Your task to perform on an android device: Open battery settings Image 0: 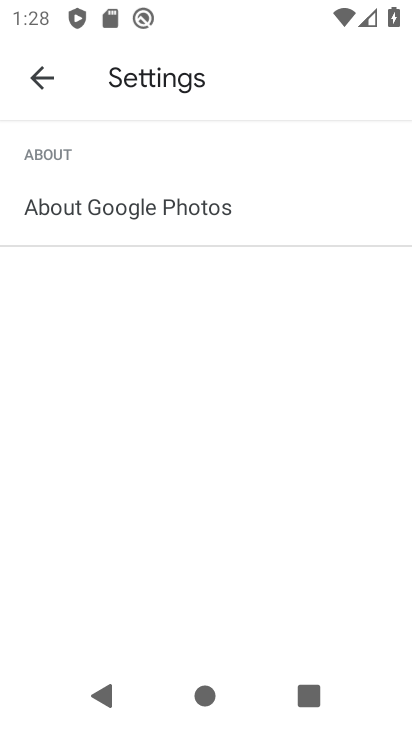
Step 0: press home button
Your task to perform on an android device: Open battery settings Image 1: 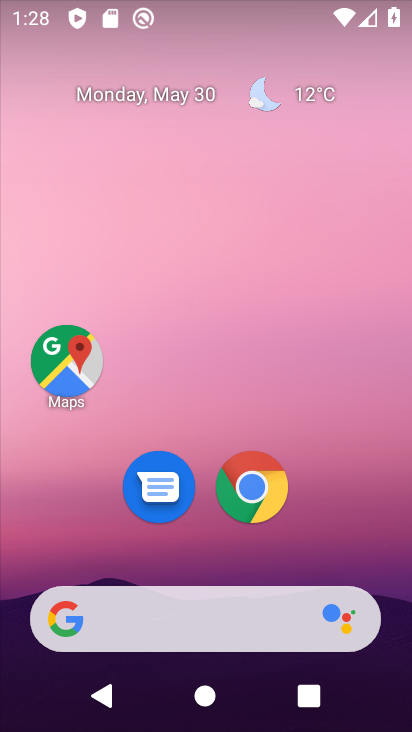
Step 1: drag from (77, 574) to (227, 75)
Your task to perform on an android device: Open battery settings Image 2: 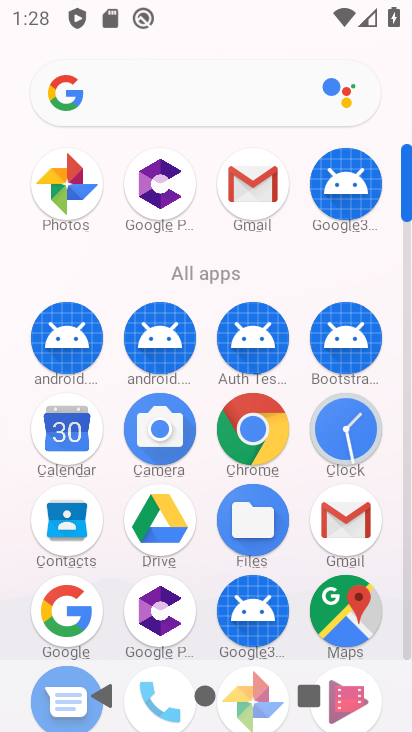
Step 2: drag from (112, 671) to (215, 385)
Your task to perform on an android device: Open battery settings Image 3: 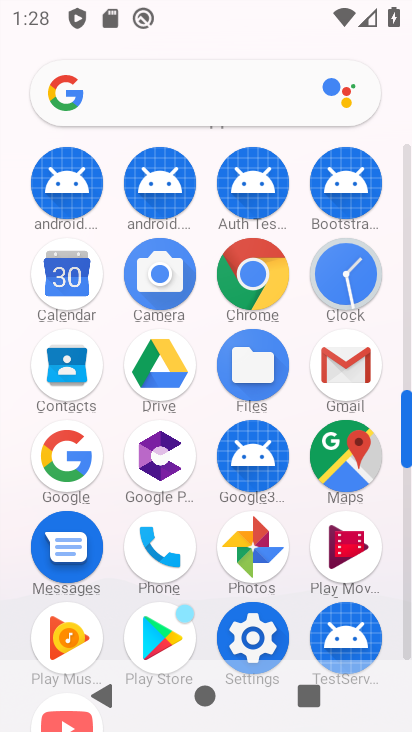
Step 3: click (254, 655)
Your task to perform on an android device: Open battery settings Image 4: 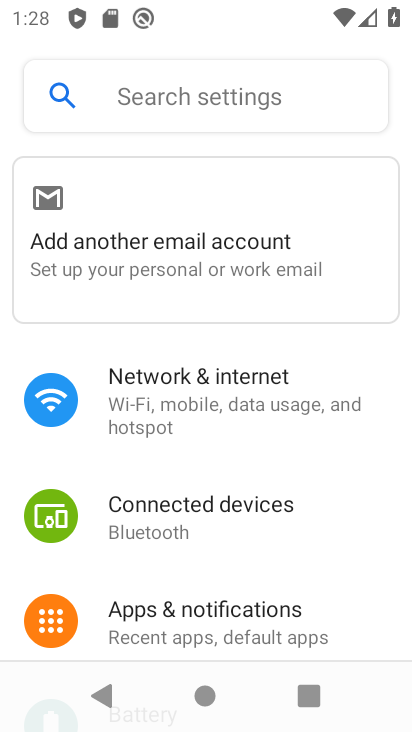
Step 4: drag from (178, 576) to (334, 179)
Your task to perform on an android device: Open battery settings Image 5: 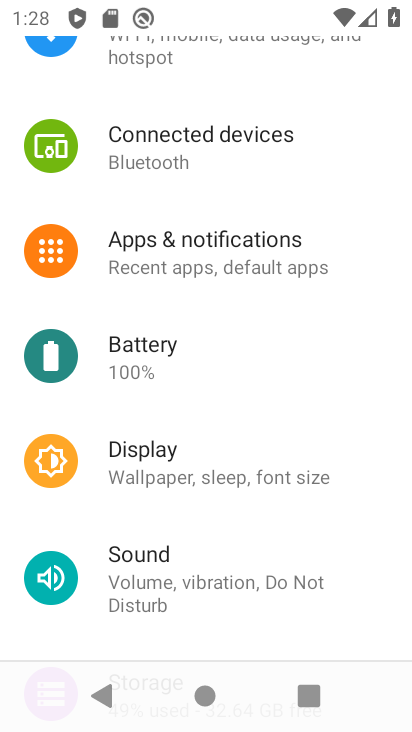
Step 5: drag from (216, 599) to (309, 205)
Your task to perform on an android device: Open battery settings Image 6: 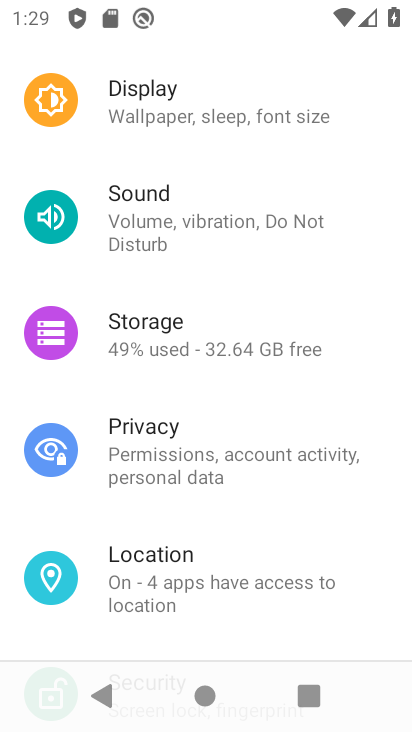
Step 6: drag from (207, 143) to (214, 585)
Your task to perform on an android device: Open battery settings Image 7: 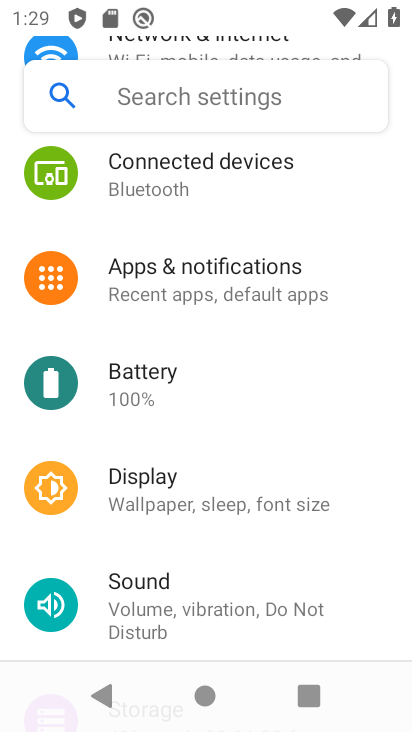
Step 7: click (205, 369)
Your task to perform on an android device: Open battery settings Image 8: 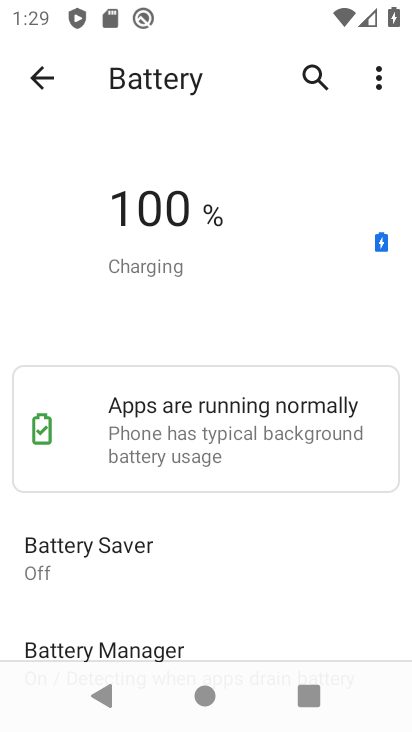
Step 8: task complete